Your task to perform on an android device: Open Amazon Image 0: 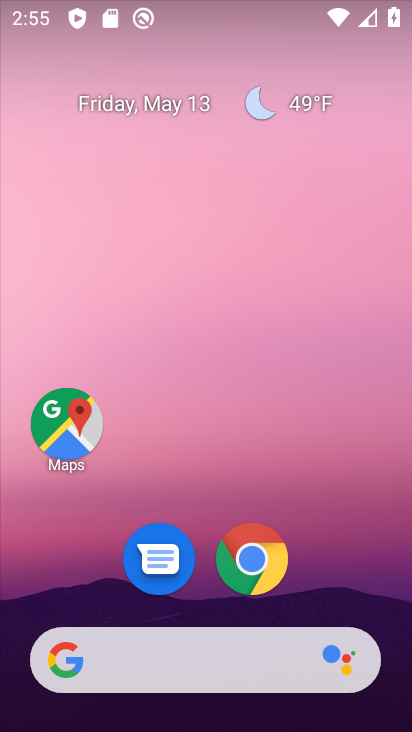
Step 0: drag from (378, 604) to (328, 142)
Your task to perform on an android device: Open Amazon Image 1: 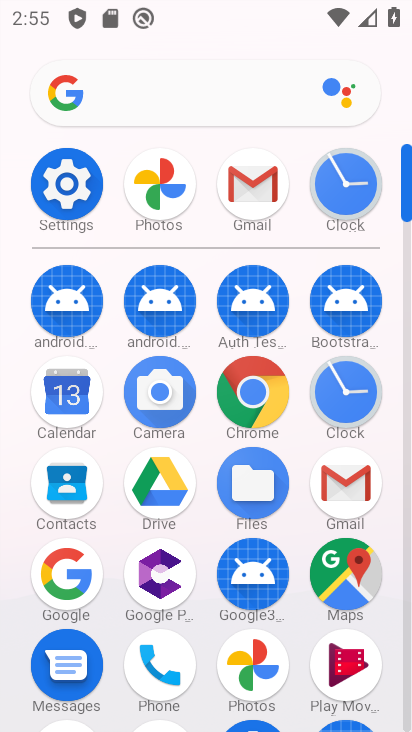
Step 1: click (406, 694)
Your task to perform on an android device: Open Amazon Image 2: 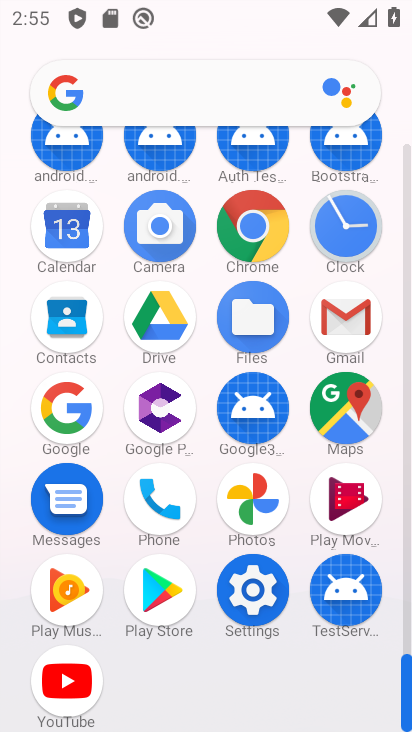
Step 2: click (245, 221)
Your task to perform on an android device: Open Amazon Image 3: 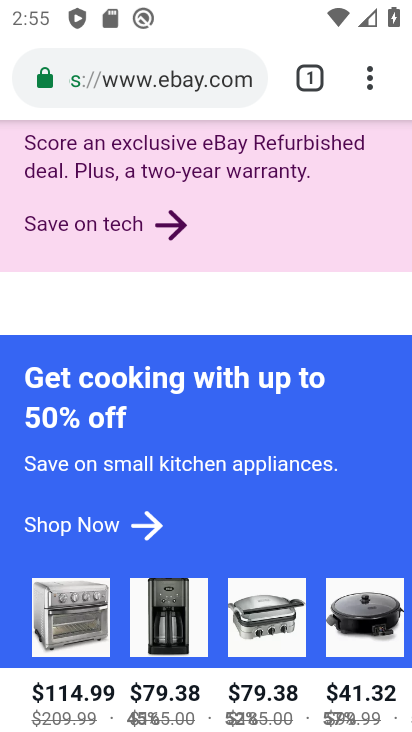
Step 3: click (209, 75)
Your task to perform on an android device: Open Amazon Image 4: 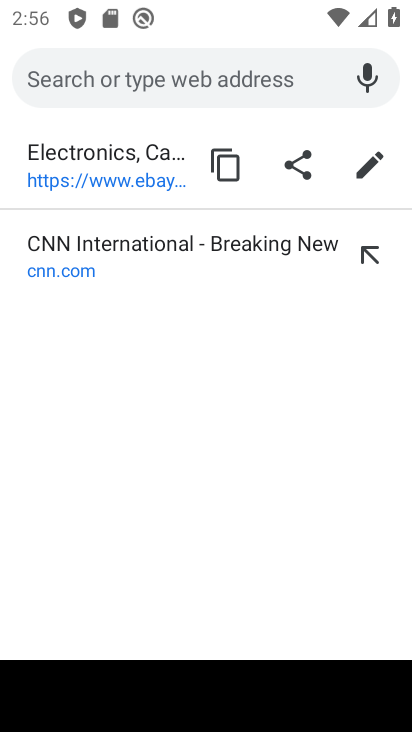
Step 4: type "amazon"
Your task to perform on an android device: Open Amazon Image 5: 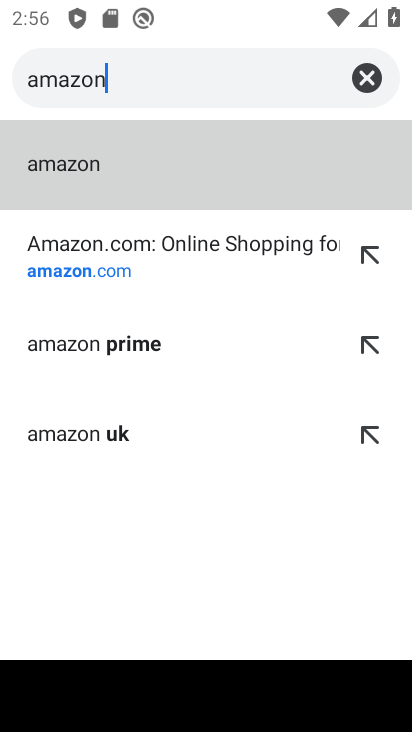
Step 5: click (64, 172)
Your task to perform on an android device: Open Amazon Image 6: 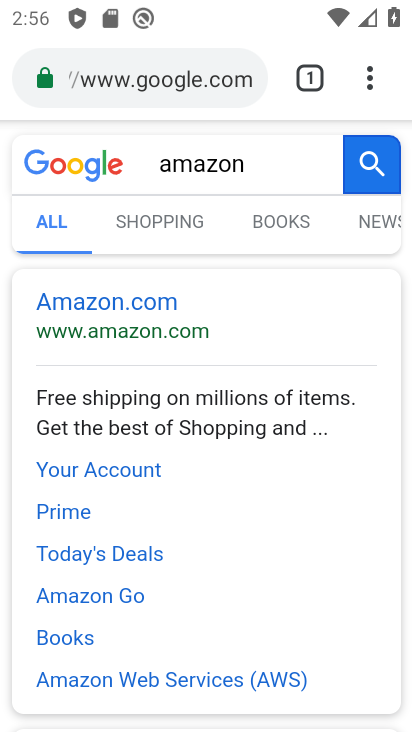
Step 6: click (93, 317)
Your task to perform on an android device: Open Amazon Image 7: 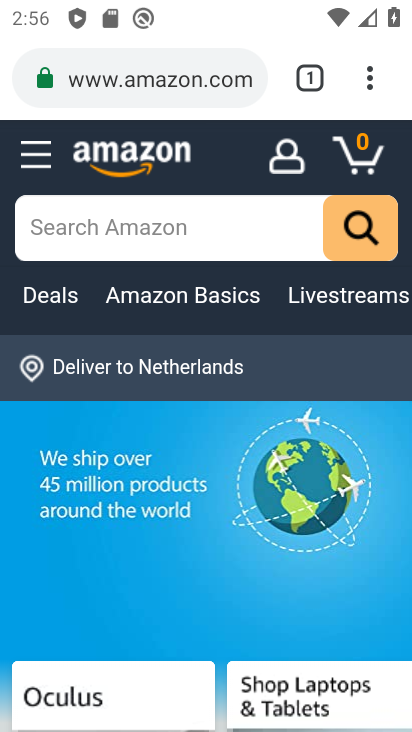
Step 7: task complete